Your task to perform on an android device: Do I have any events tomorrow? Image 0: 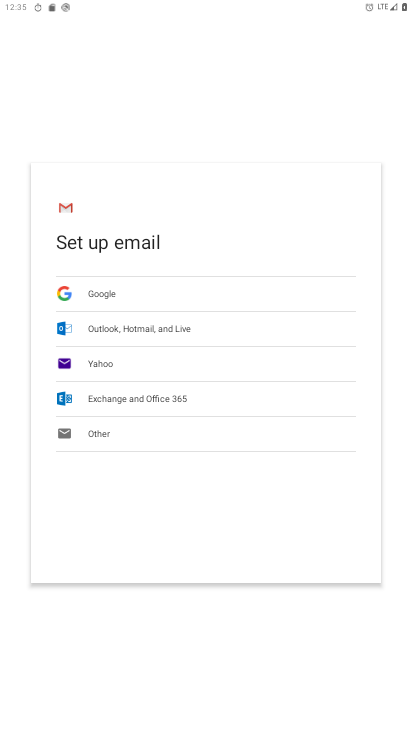
Step 0: press home button
Your task to perform on an android device: Do I have any events tomorrow? Image 1: 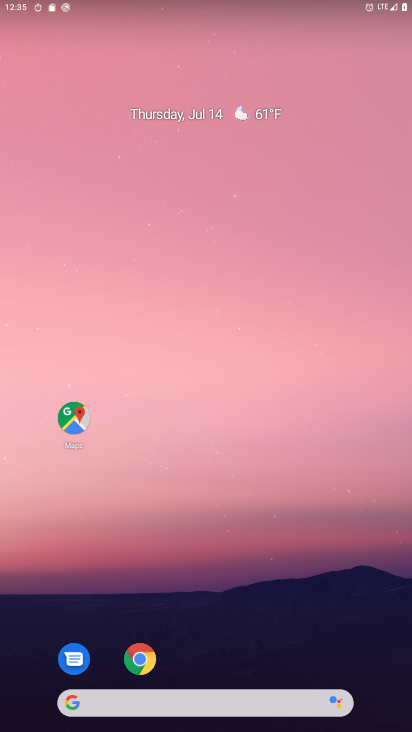
Step 1: drag from (219, 658) to (209, 6)
Your task to perform on an android device: Do I have any events tomorrow? Image 2: 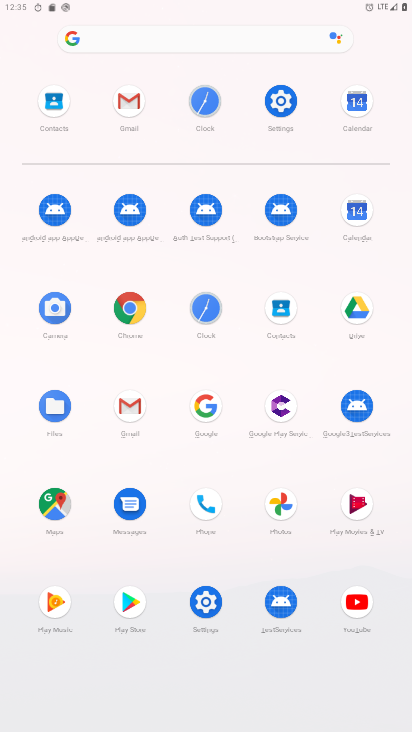
Step 2: click (355, 207)
Your task to perform on an android device: Do I have any events tomorrow? Image 3: 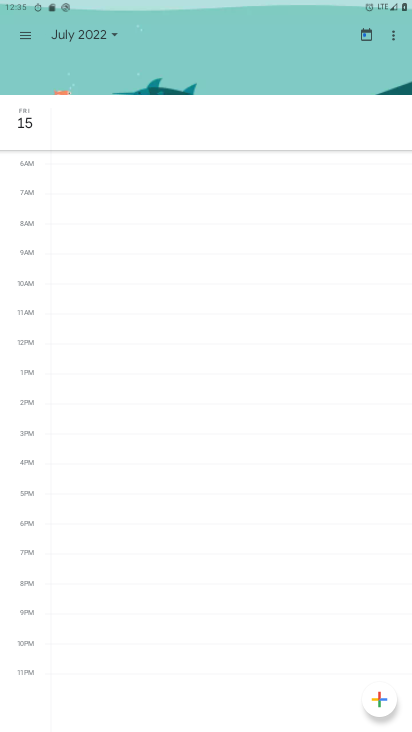
Step 3: task complete